Your task to perform on an android device: install app "NewsBreak: Local News & Alerts" Image 0: 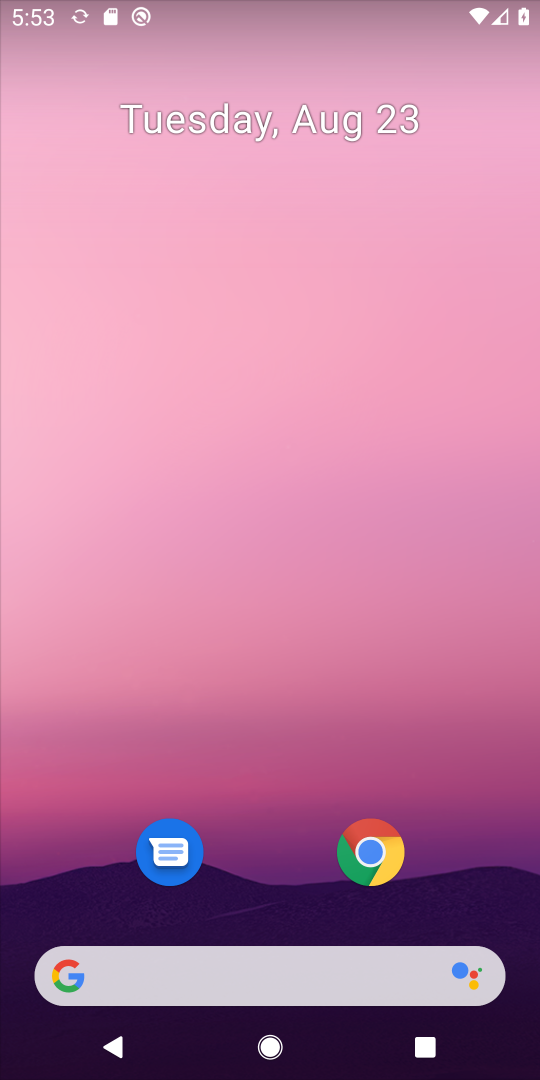
Step 0: drag from (216, 976) to (393, 4)
Your task to perform on an android device: install app "NewsBreak: Local News & Alerts" Image 1: 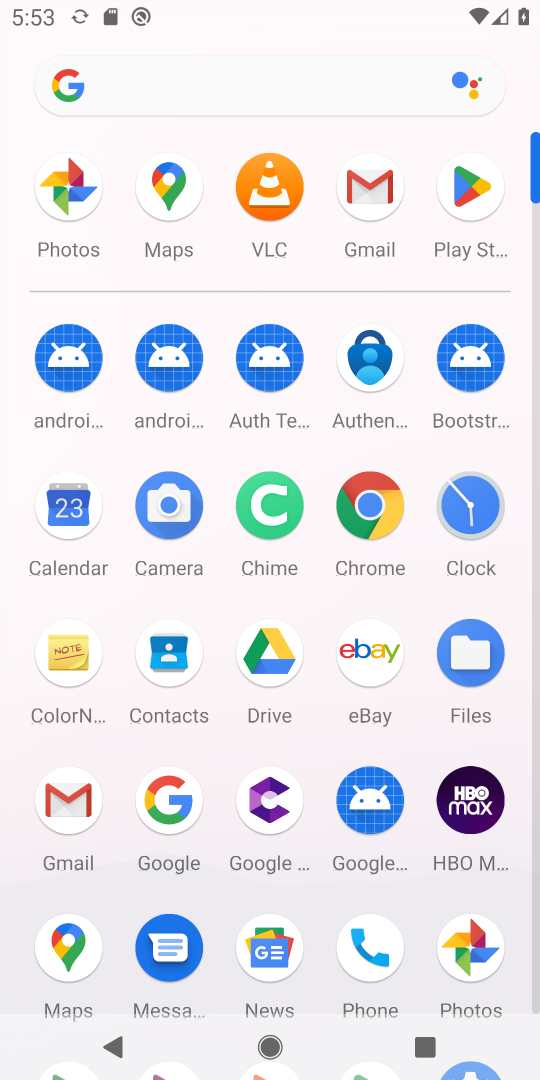
Step 1: click (478, 195)
Your task to perform on an android device: install app "NewsBreak: Local News & Alerts" Image 2: 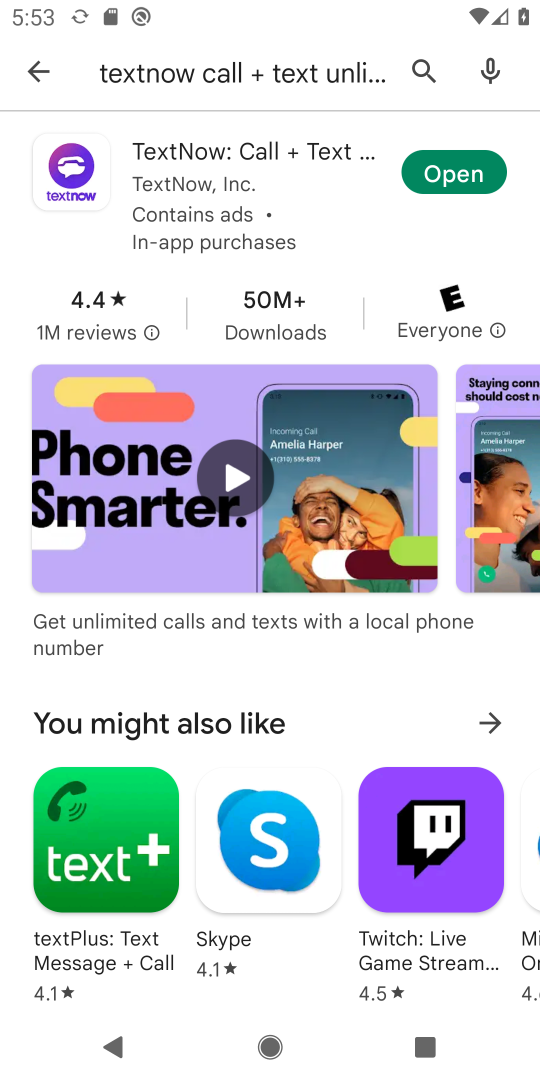
Step 2: press back button
Your task to perform on an android device: install app "NewsBreak: Local News & Alerts" Image 3: 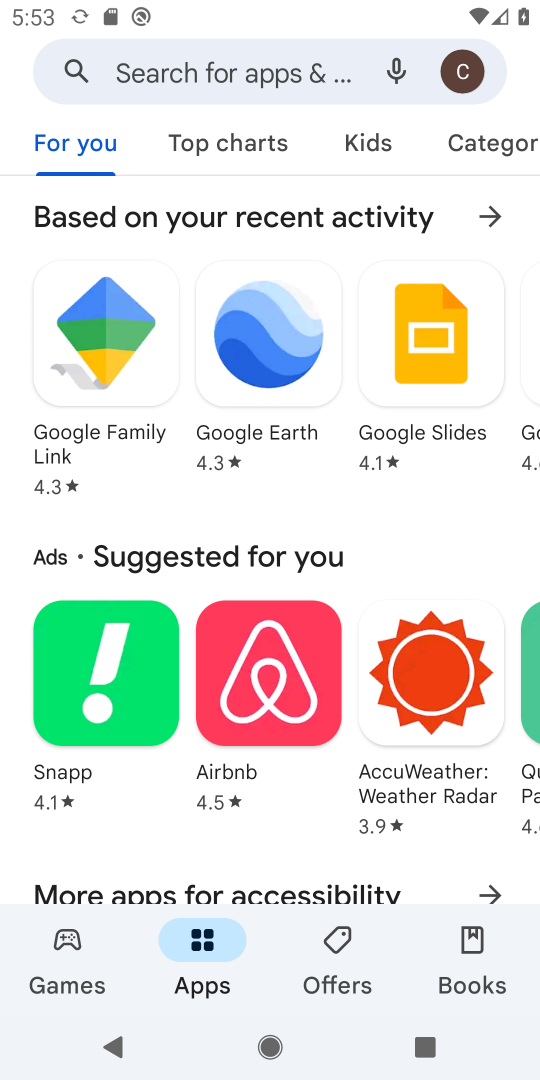
Step 3: click (225, 58)
Your task to perform on an android device: install app "NewsBreak: Local News & Alerts" Image 4: 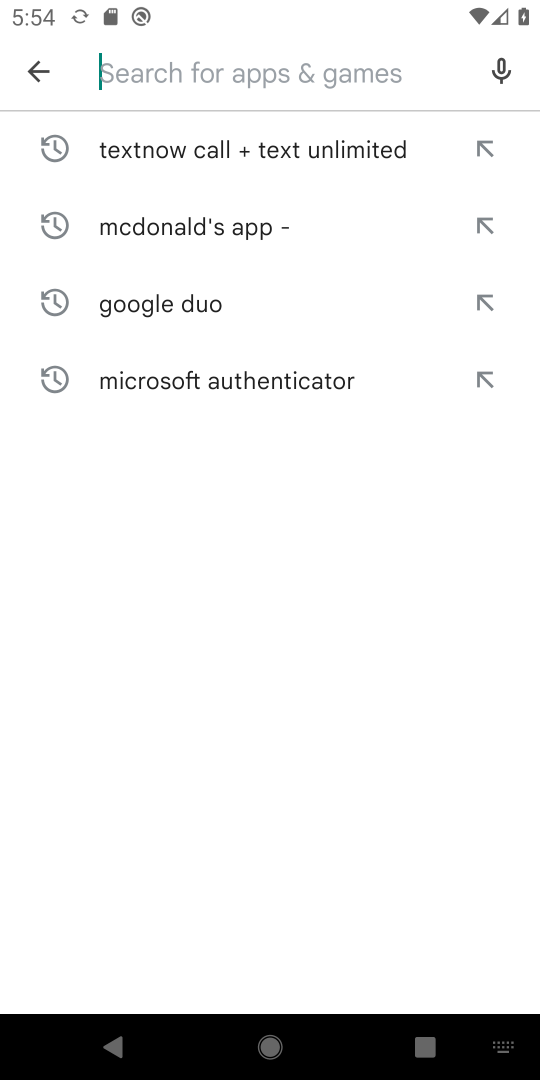
Step 4: type "NewsBreak: Local News & Alerts"
Your task to perform on an android device: install app "NewsBreak: Local News & Alerts" Image 5: 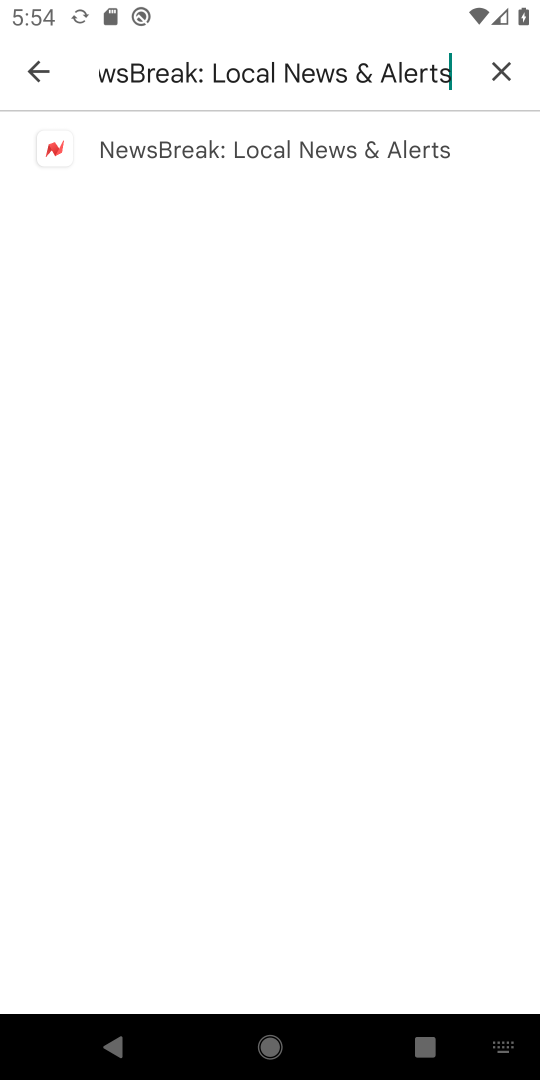
Step 5: click (383, 158)
Your task to perform on an android device: install app "NewsBreak: Local News & Alerts" Image 6: 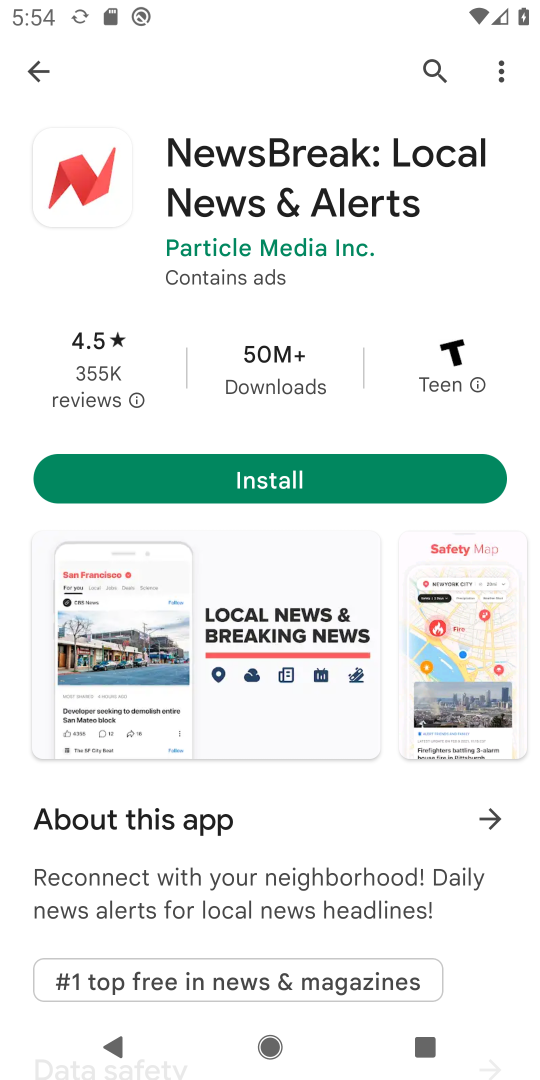
Step 6: click (252, 481)
Your task to perform on an android device: install app "NewsBreak: Local News & Alerts" Image 7: 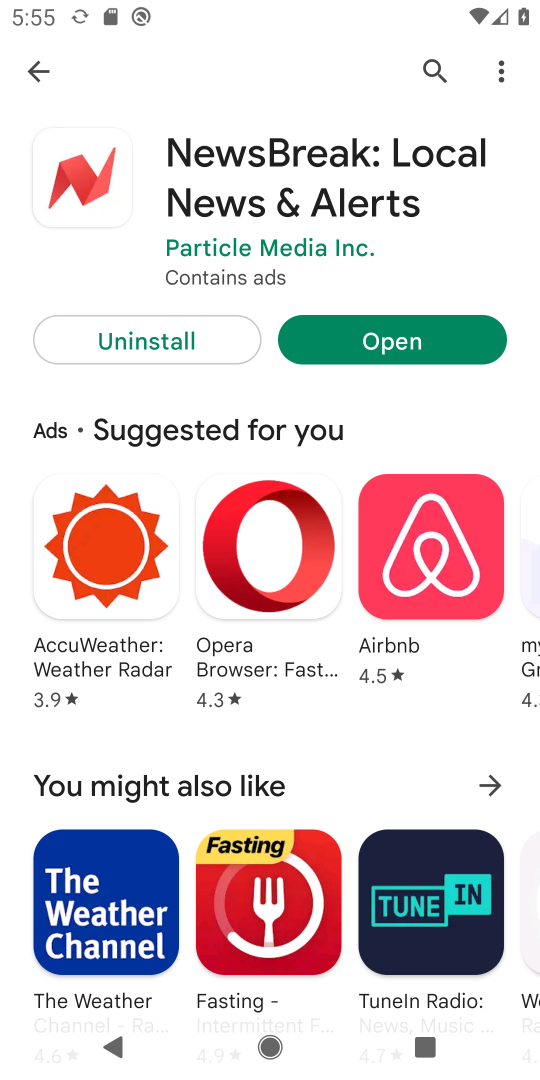
Step 7: task complete